Your task to perform on an android device: Go to eBay Image 0: 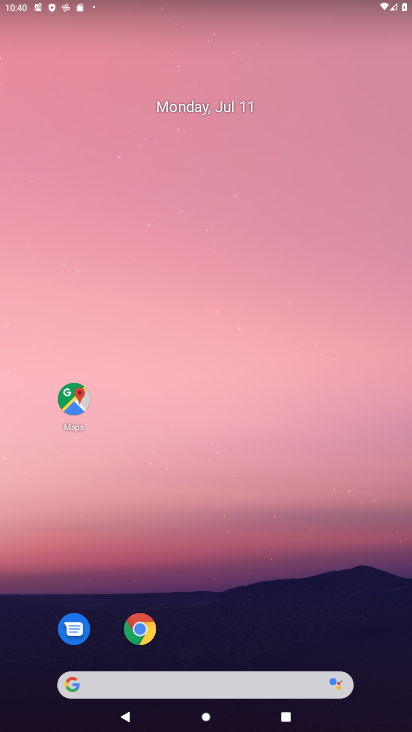
Step 0: click (151, 630)
Your task to perform on an android device: Go to eBay Image 1: 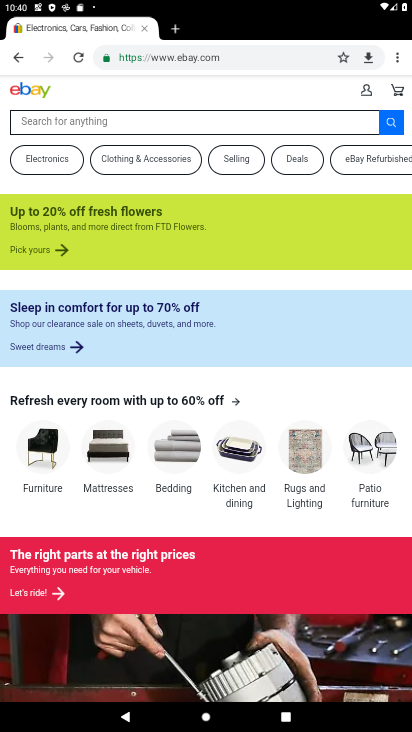
Step 1: task complete